Your task to perform on an android device: toggle improve location accuracy Image 0: 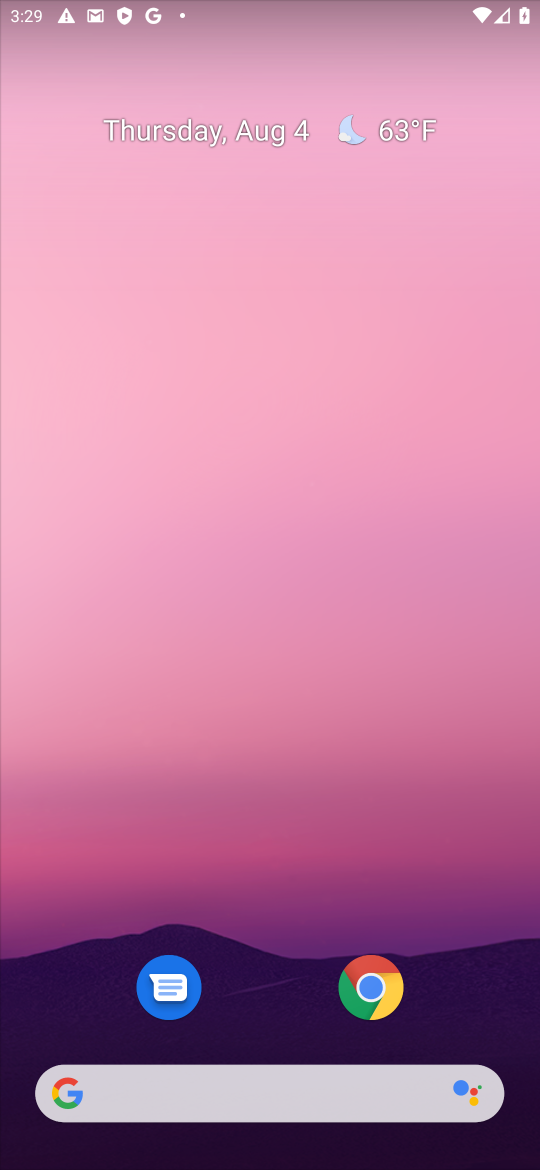
Step 0: drag from (273, 330) to (289, 221)
Your task to perform on an android device: toggle improve location accuracy Image 1: 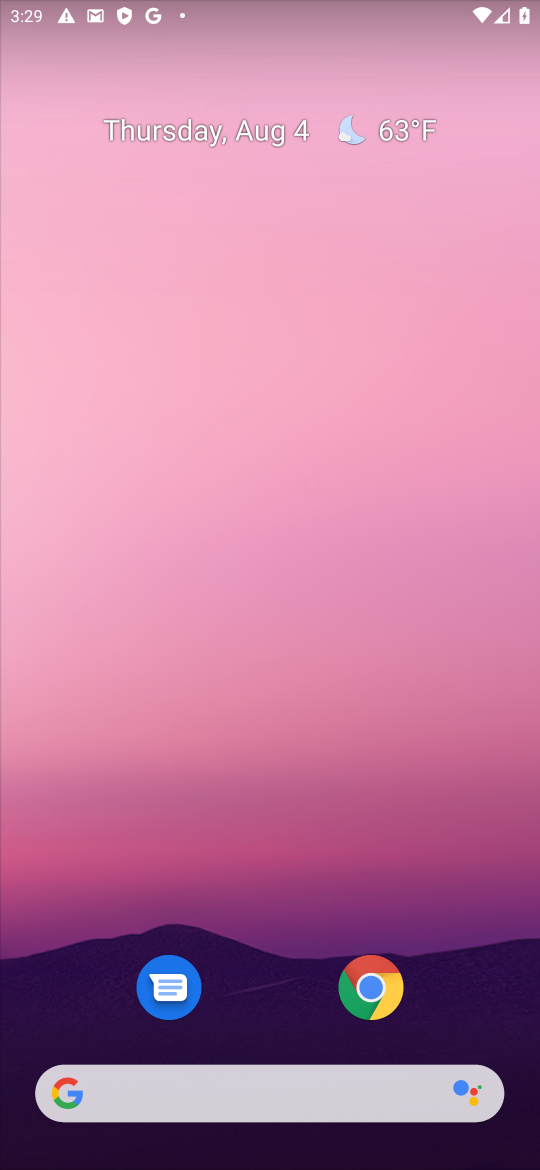
Step 1: drag from (272, 901) to (340, 297)
Your task to perform on an android device: toggle improve location accuracy Image 2: 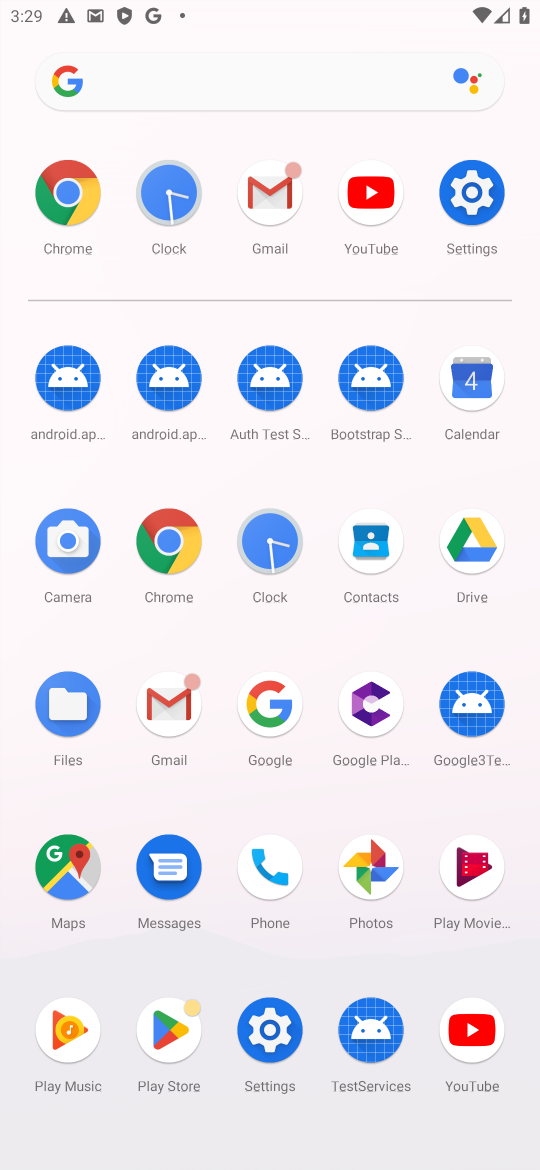
Step 2: click (473, 201)
Your task to perform on an android device: toggle improve location accuracy Image 3: 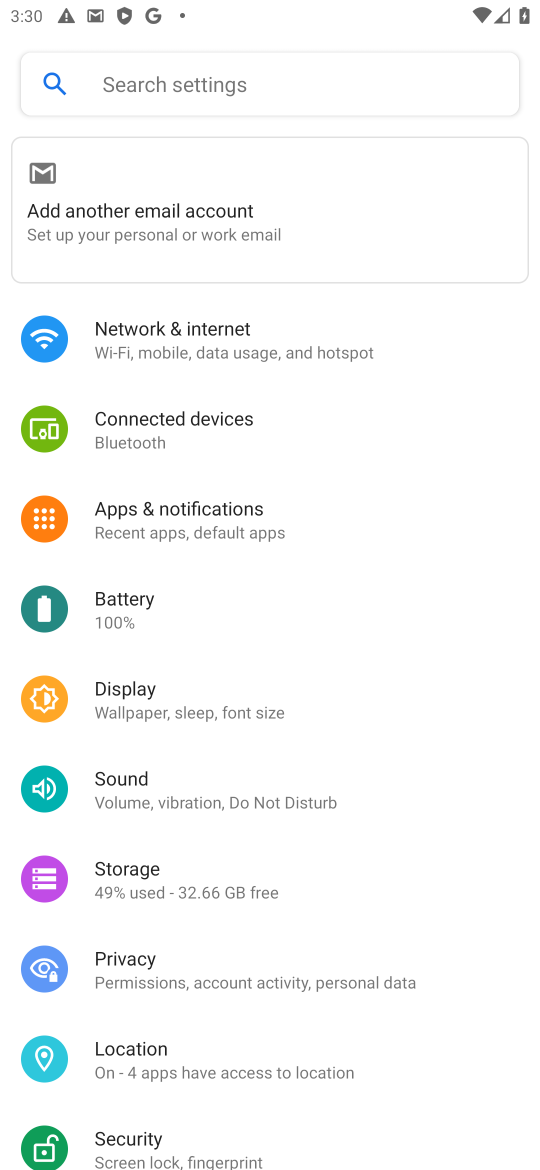
Step 3: click (113, 1046)
Your task to perform on an android device: toggle improve location accuracy Image 4: 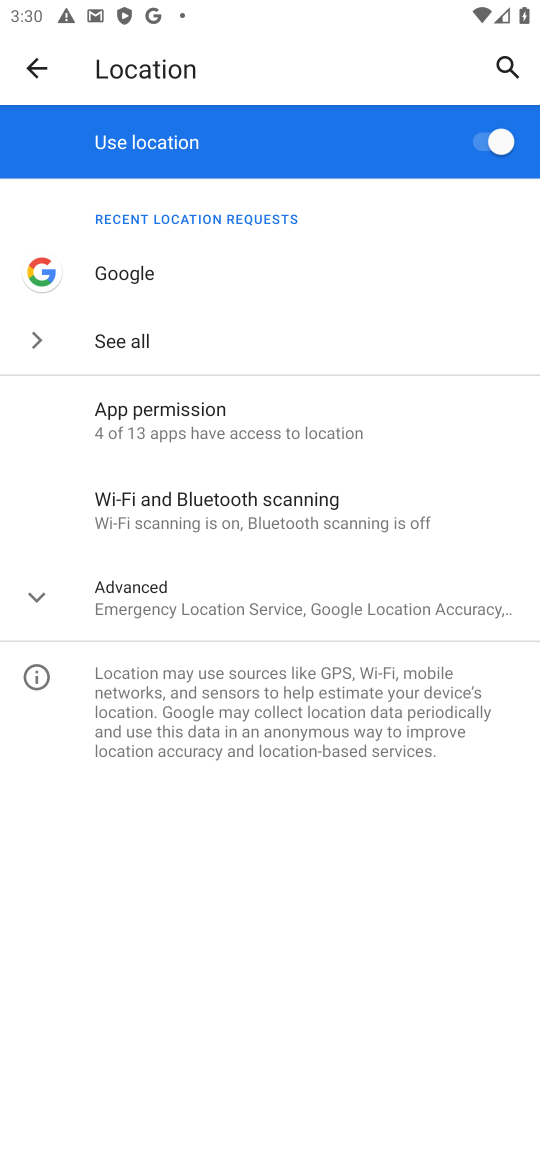
Step 4: click (130, 589)
Your task to perform on an android device: toggle improve location accuracy Image 5: 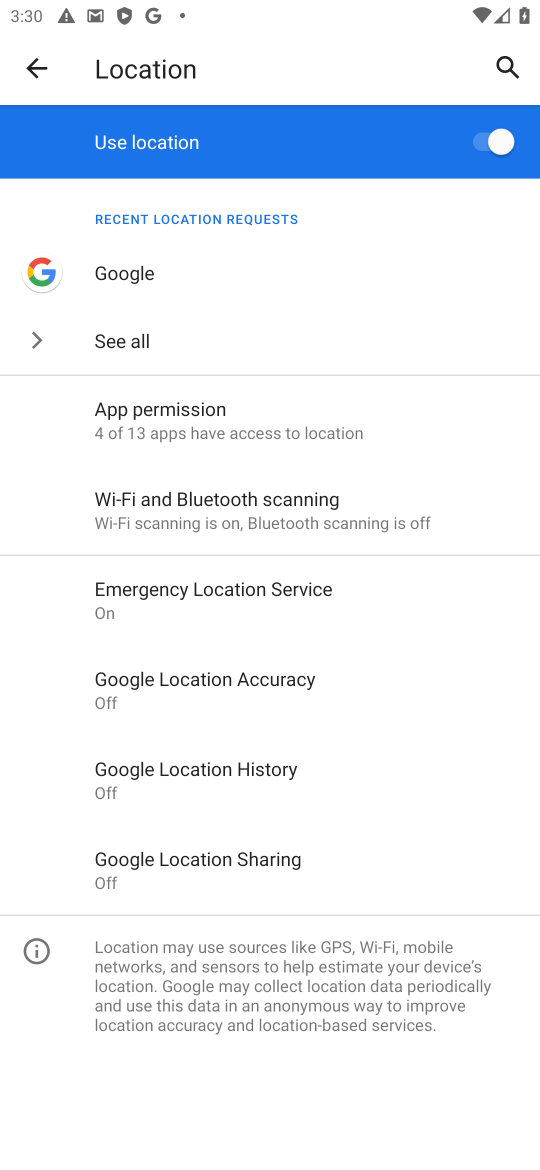
Step 5: click (226, 683)
Your task to perform on an android device: toggle improve location accuracy Image 6: 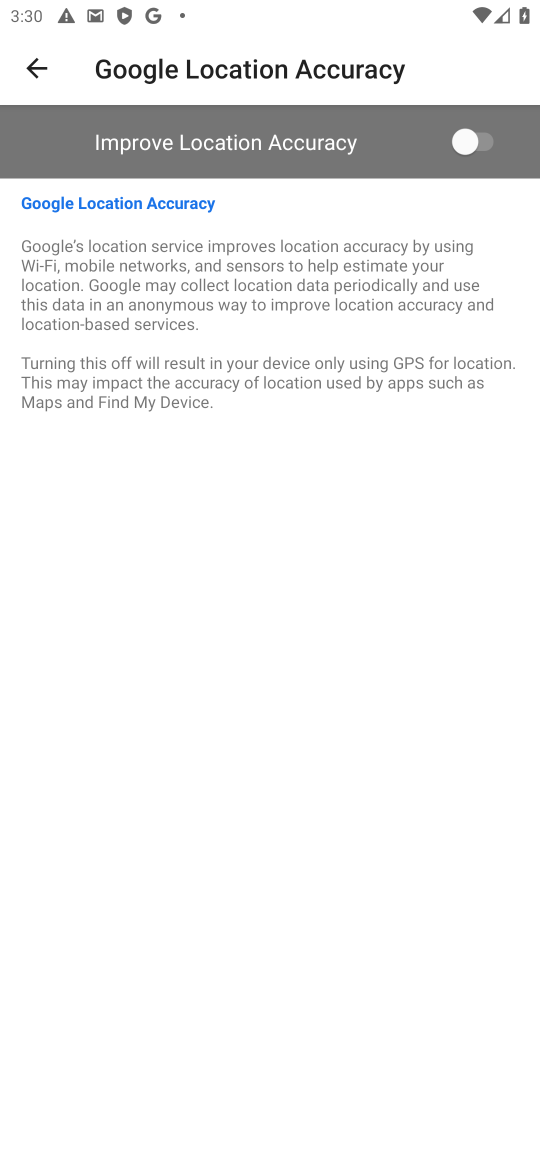
Step 6: click (486, 133)
Your task to perform on an android device: toggle improve location accuracy Image 7: 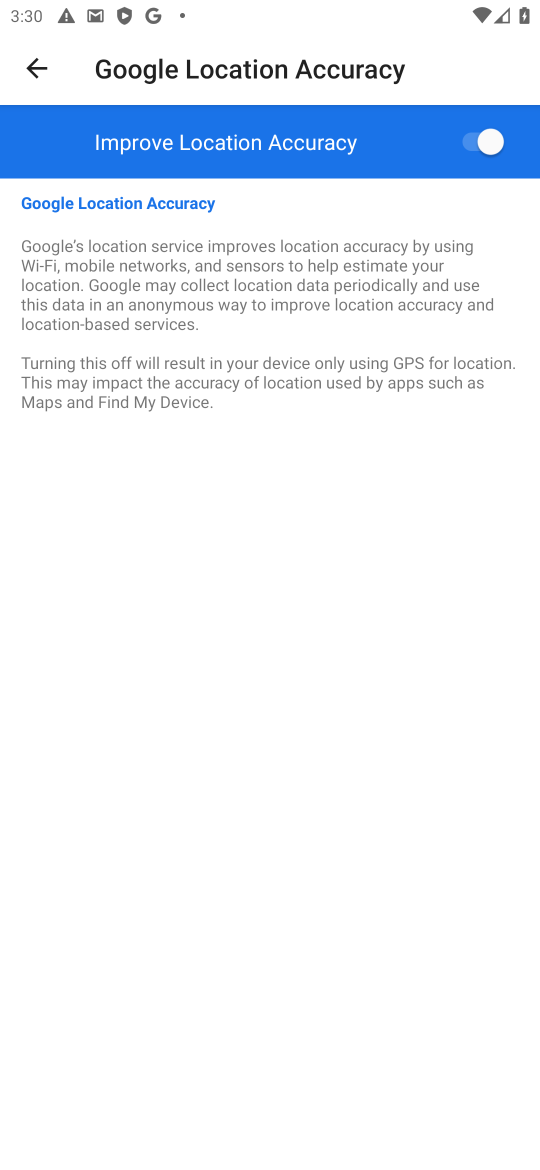
Step 7: task complete